Your task to perform on an android device: Open notification settings Image 0: 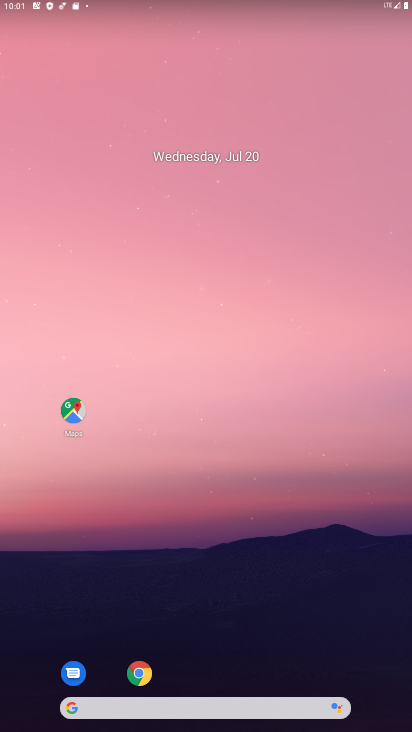
Step 0: drag from (208, 707) to (264, 273)
Your task to perform on an android device: Open notification settings Image 1: 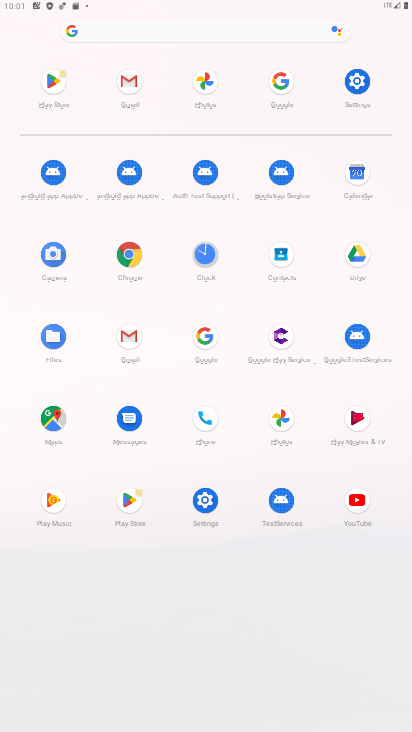
Step 1: click (359, 81)
Your task to perform on an android device: Open notification settings Image 2: 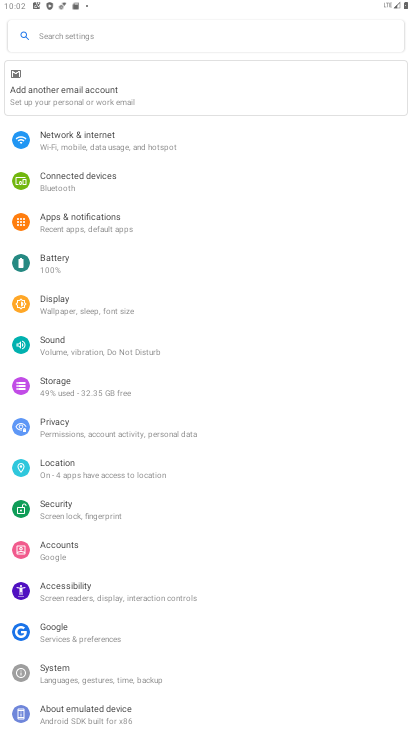
Step 2: click (74, 222)
Your task to perform on an android device: Open notification settings Image 3: 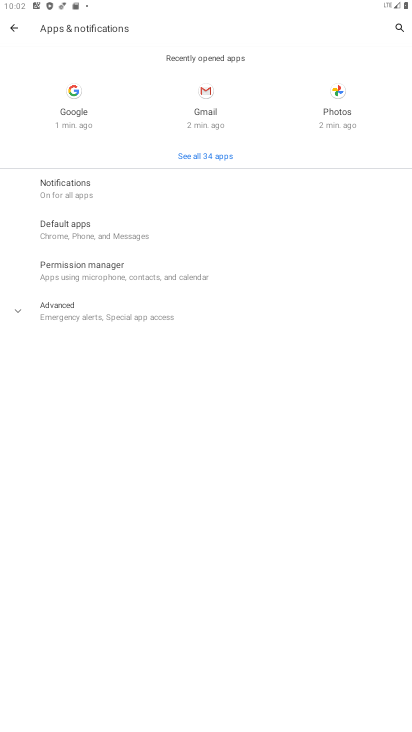
Step 3: click (72, 187)
Your task to perform on an android device: Open notification settings Image 4: 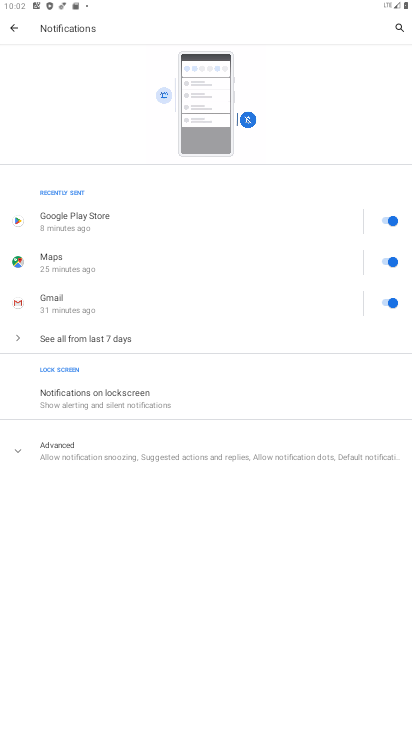
Step 4: task complete